Your task to perform on an android device: Set the phone to "Do not disturb". Image 0: 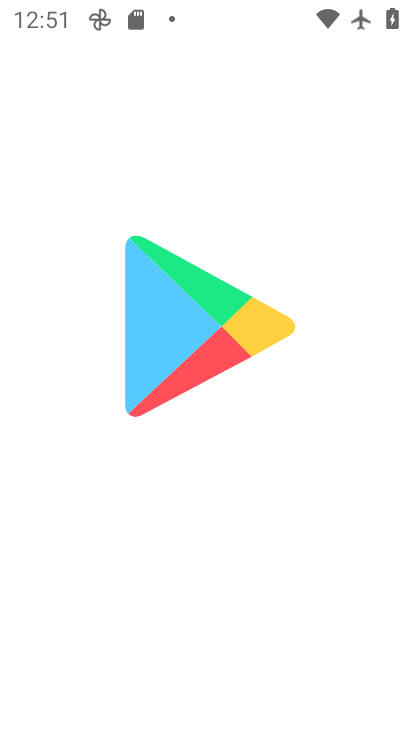
Step 0: drag from (331, 474) to (272, 171)
Your task to perform on an android device: Set the phone to "Do not disturb". Image 1: 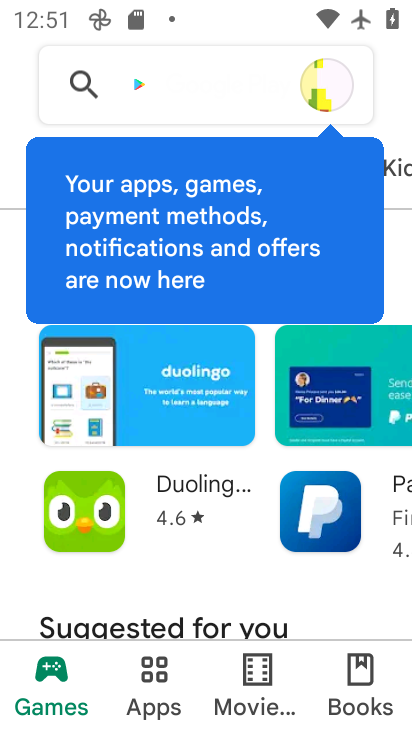
Step 1: press home button
Your task to perform on an android device: Set the phone to "Do not disturb". Image 2: 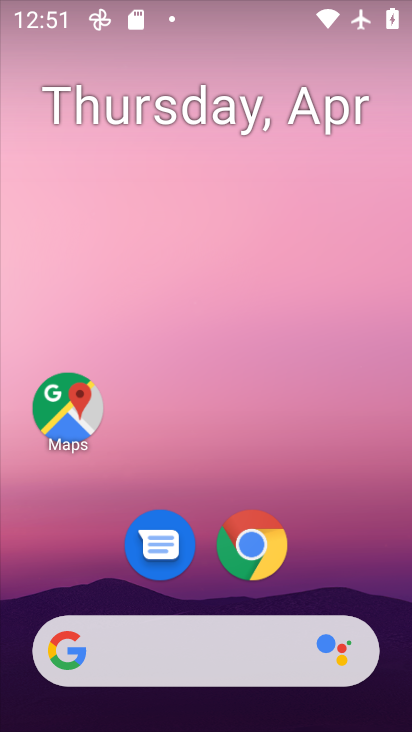
Step 2: drag from (227, 5) to (295, 388)
Your task to perform on an android device: Set the phone to "Do not disturb". Image 3: 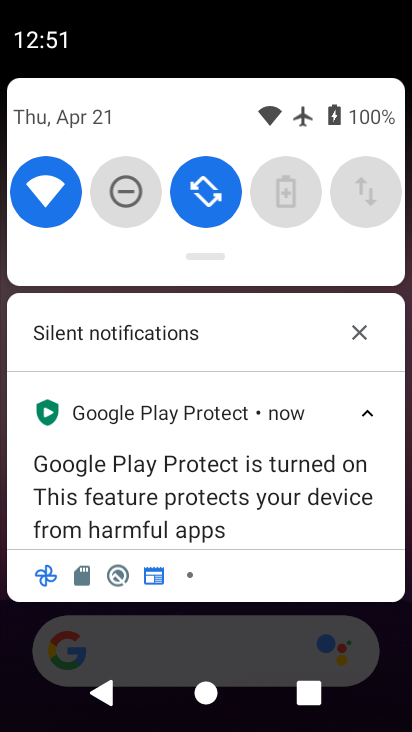
Step 3: drag from (283, 261) to (304, 478)
Your task to perform on an android device: Set the phone to "Do not disturb". Image 4: 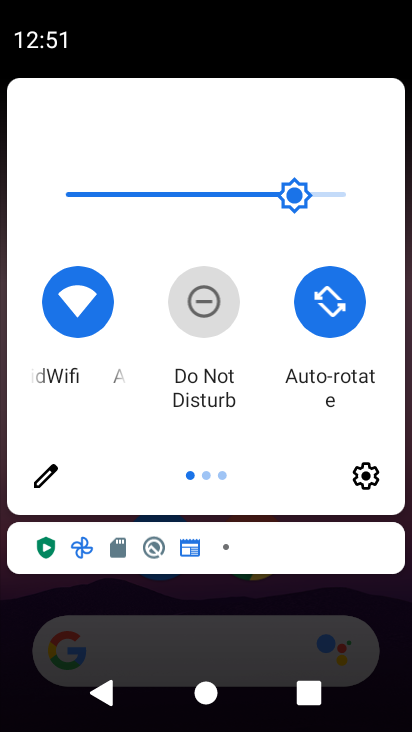
Step 4: drag from (332, 327) to (55, 347)
Your task to perform on an android device: Set the phone to "Do not disturb". Image 5: 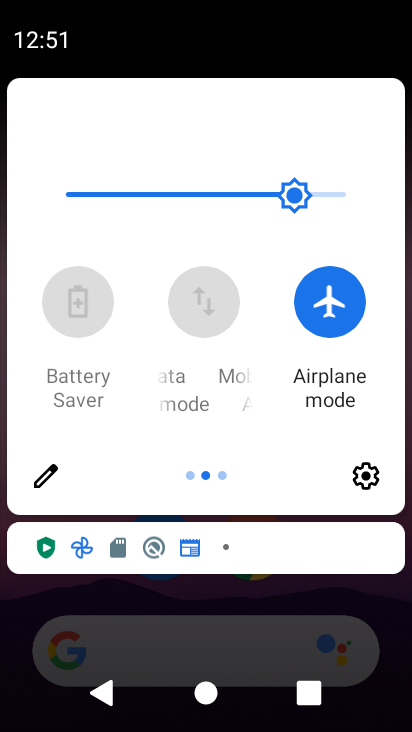
Step 5: drag from (337, 344) to (38, 391)
Your task to perform on an android device: Set the phone to "Do not disturb". Image 6: 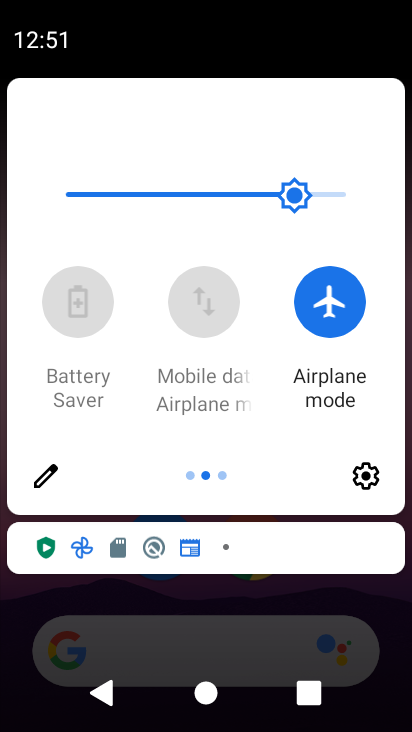
Step 6: drag from (267, 354) to (0, 354)
Your task to perform on an android device: Set the phone to "Do not disturb". Image 7: 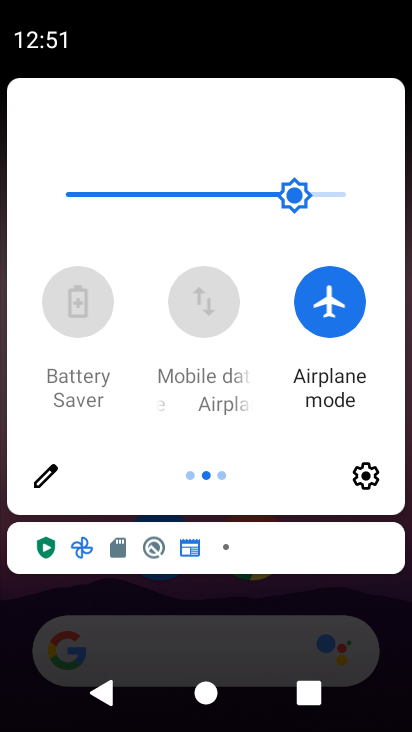
Step 7: drag from (106, 382) to (325, 342)
Your task to perform on an android device: Set the phone to "Do not disturb". Image 8: 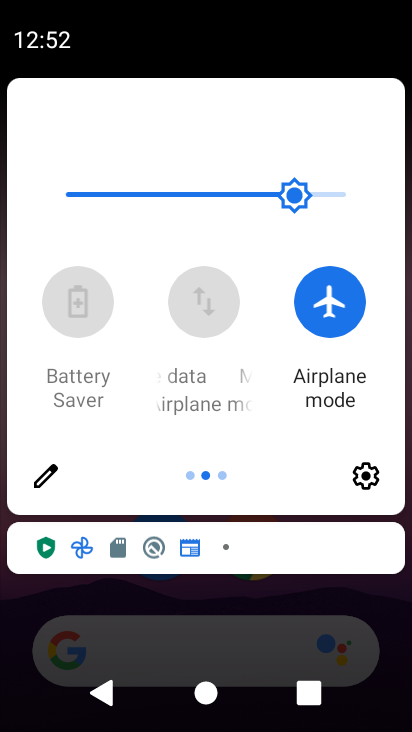
Step 8: drag from (121, 357) to (326, 348)
Your task to perform on an android device: Set the phone to "Do not disturb". Image 9: 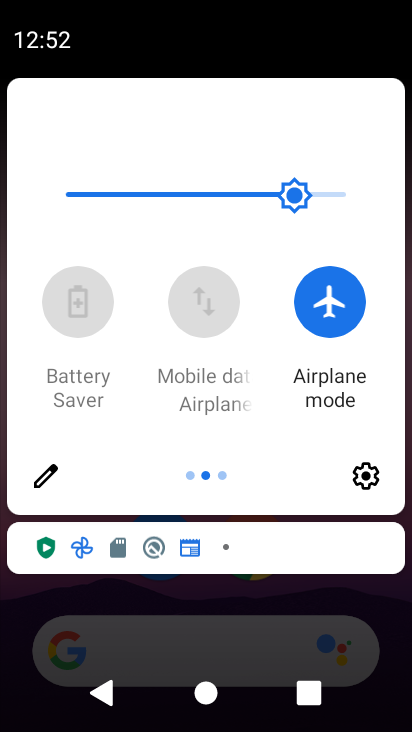
Step 9: drag from (103, 364) to (389, 348)
Your task to perform on an android device: Set the phone to "Do not disturb". Image 10: 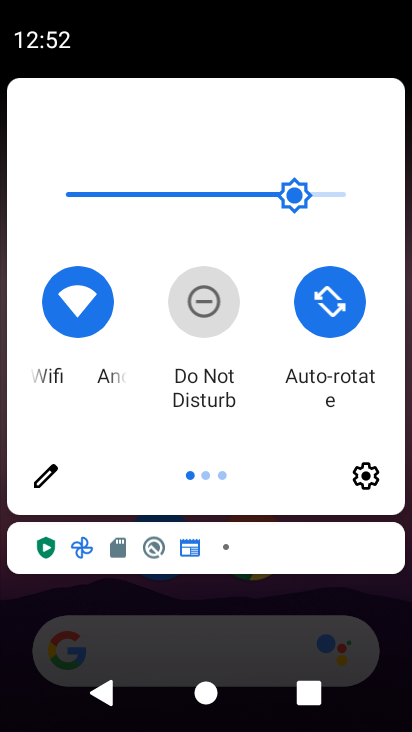
Step 10: click (213, 310)
Your task to perform on an android device: Set the phone to "Do not disturb". Image 11: 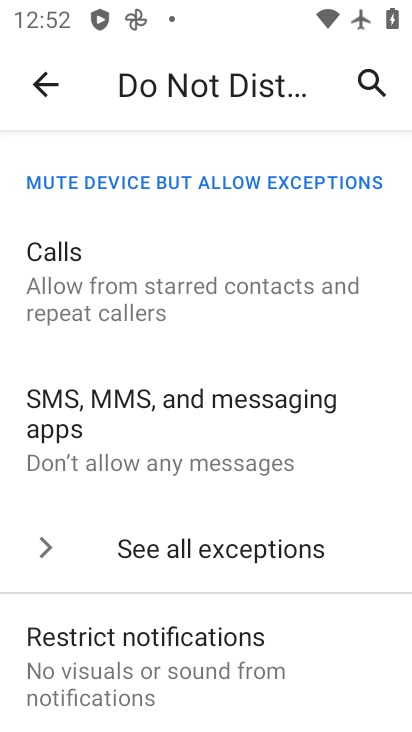
Step 11: drag from (223, 581) to (267, 174)
Your task to perform on an android device: Set the phone to "Do not disturb". Image 12: 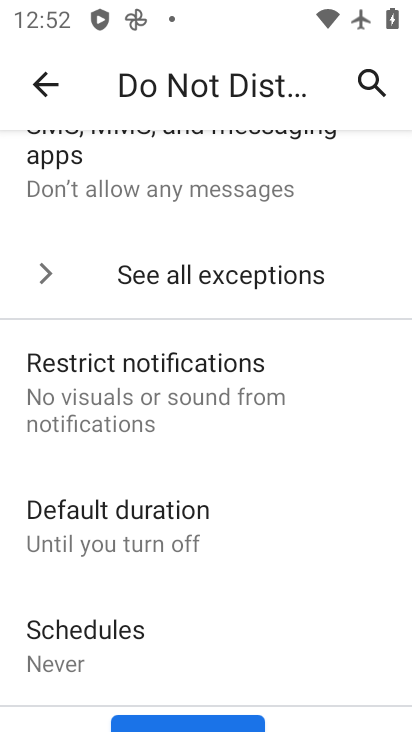
Step 12: drag from (258, 186) to (351, 0)
Your task to perform on an android device: Set the phone to "Do not disturb". Image 13: 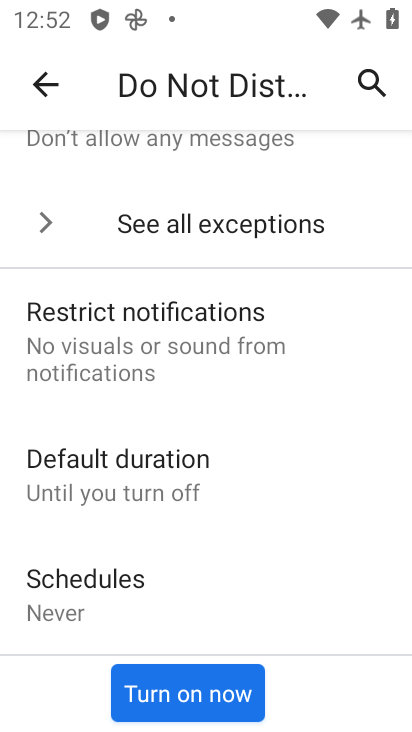
Step 13: click (205, 701)
Your task to perform on an android device: Set the phone to "Do not disturb". Image 14: 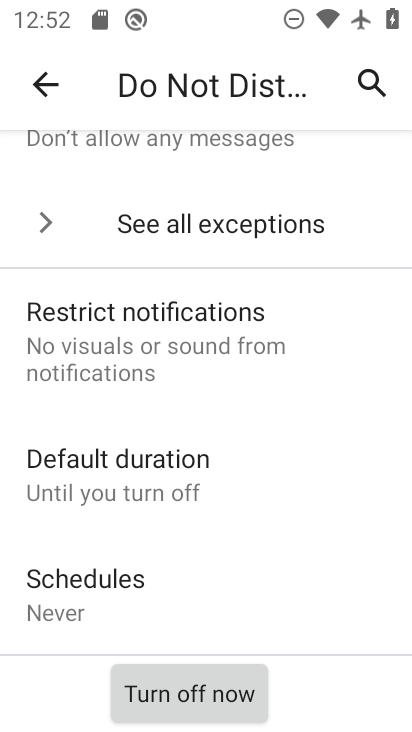
Step 14: task complete